Your task to perform on an android device: check google app version Image 0: 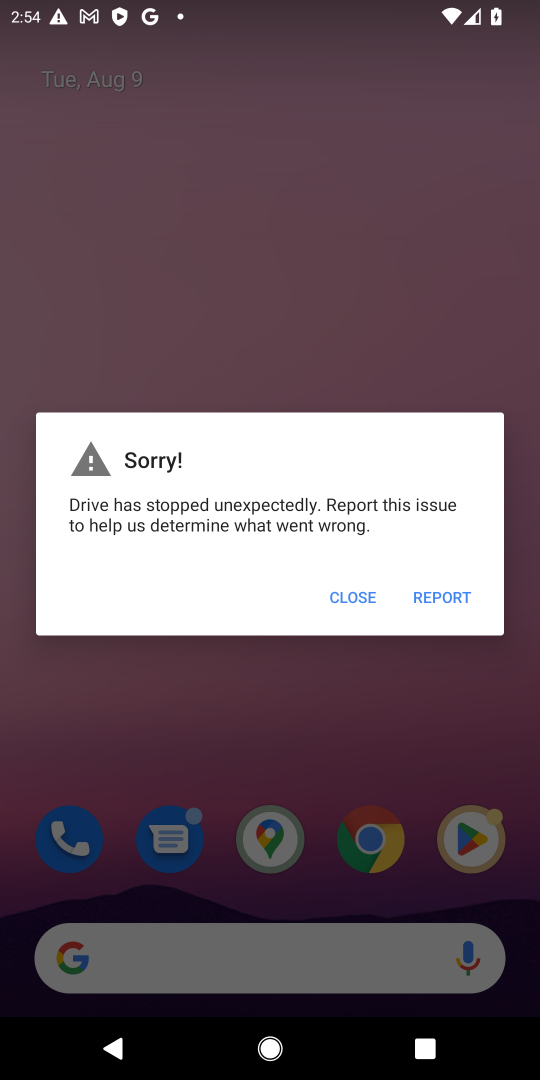
Step 0: press home button
Your task to perform on an android device: check google app version Image 1: 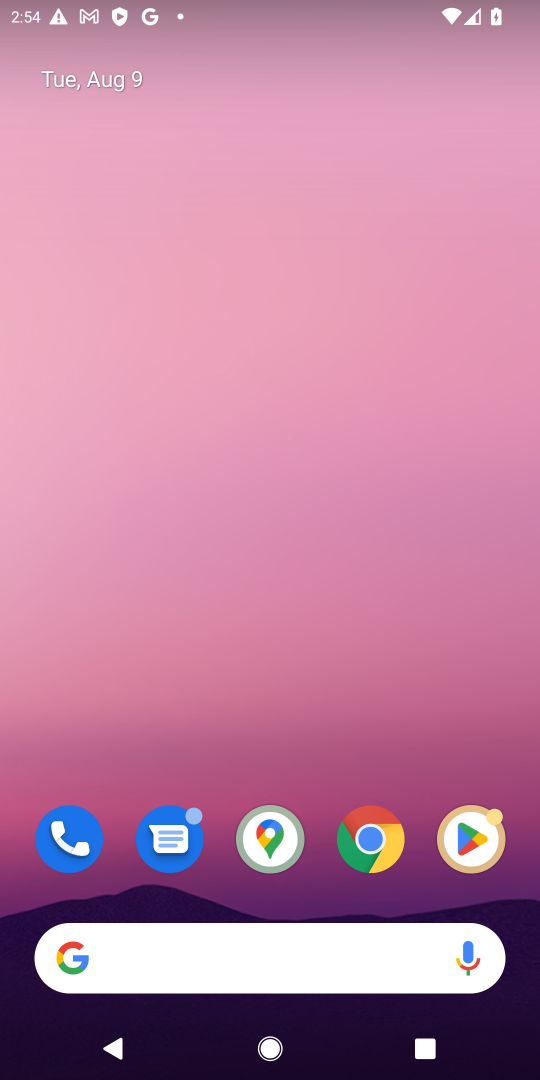
Step 1: drag from (359, 741) to (356, 63)
Your task to perform on an android device: check google app version Image 2: 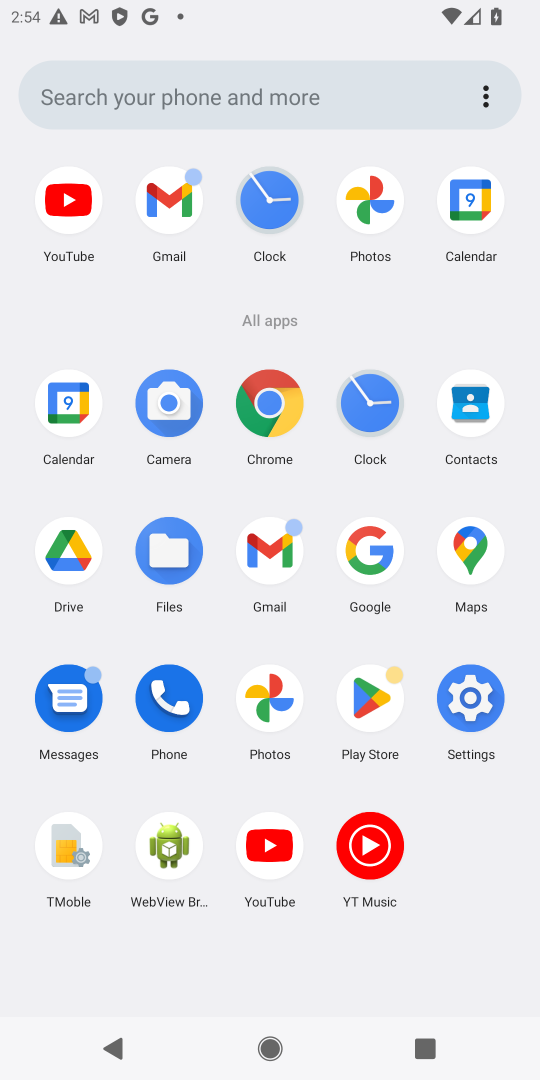
Step 2: click (385, 560)
Your task to perform on an android device: check google app version Image 3: 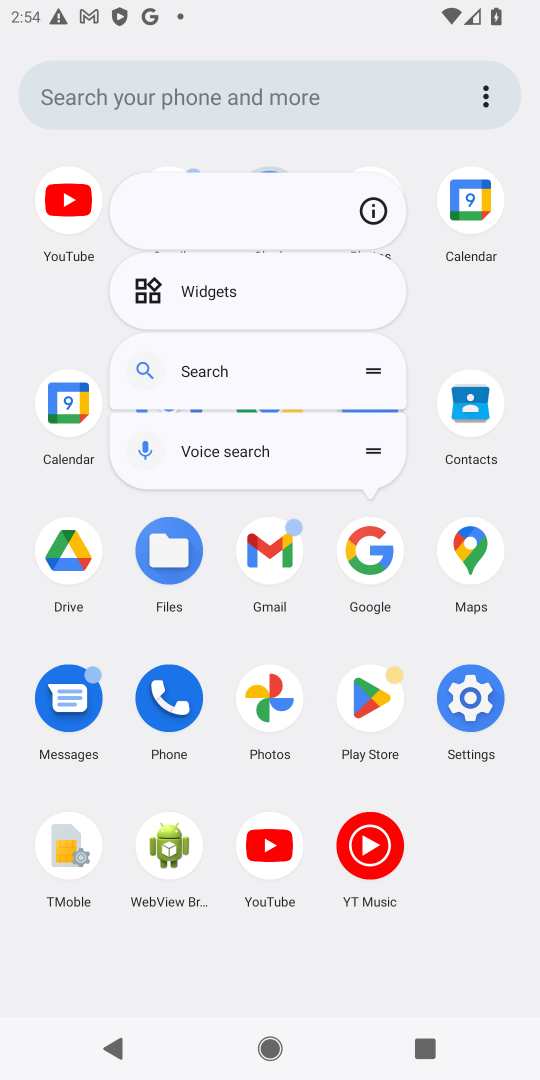
Step 3: click (379, 219)
Your task to perform on an android device: check google app version Image 4: 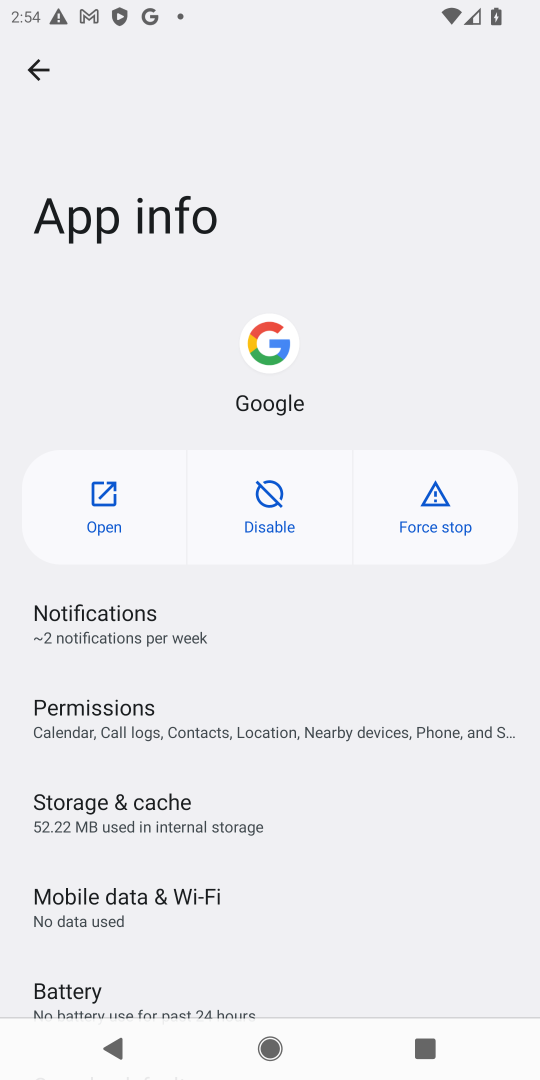
Step 4: task complete